Your task to perform on an android device: star an email in the gmail app Image 0: 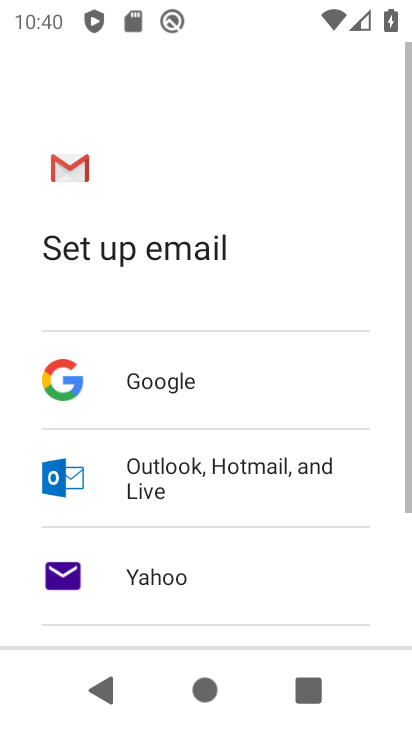
Step 0: press home button
Your task to perform on an android device: star an email in the gmail app Image 1: 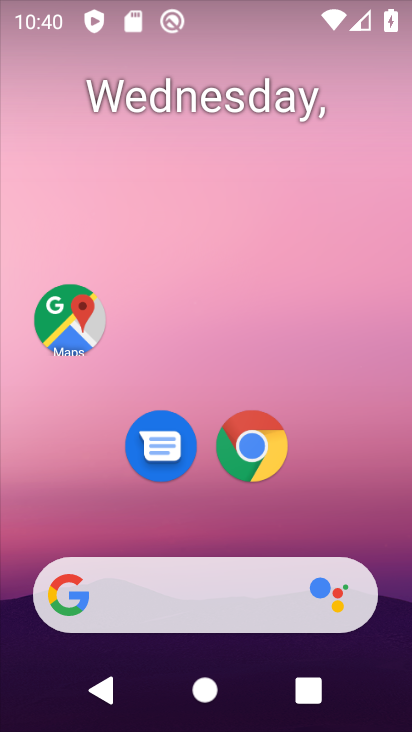
Step 1: drag from (384, 533) to (353, 158)
Your task to perform on an android device: star an email in the gmail app Image 2: 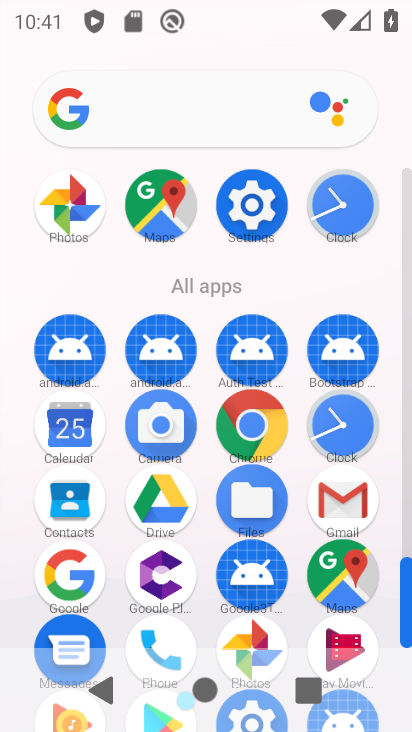
Step 2: click (354, 507)
Your task to perform on an android device: star an email in the gmail app Image 3: 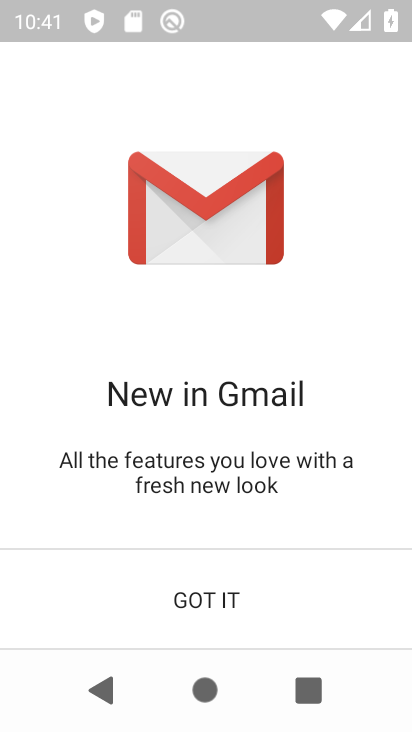
Step 3: click (236, 611)
Your task to perform on an android device: star an email in the gmail app Image 4: 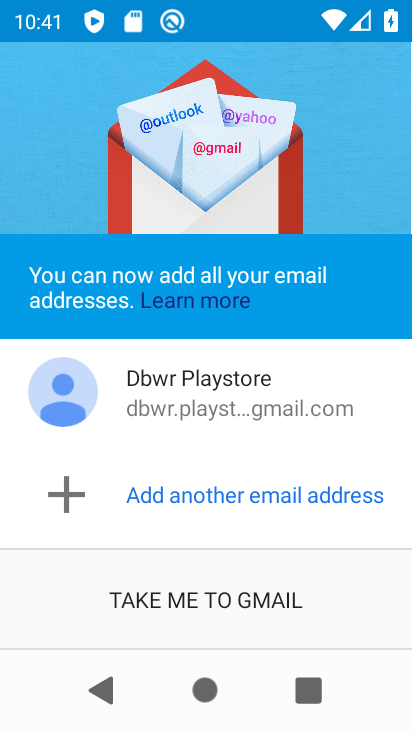
Step 4: click (274, 589)
Your task to perform on an android device: star an email in the gmail app Image 5: 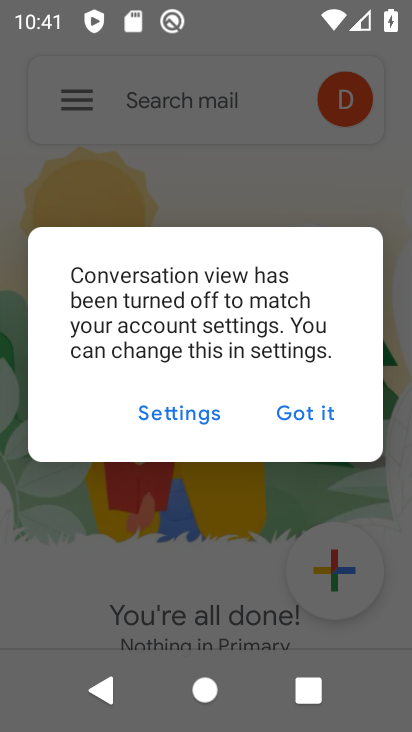
Step 5: click (305, 410)
Your task to perform on an android device: star an email in the gmail app Image 6: 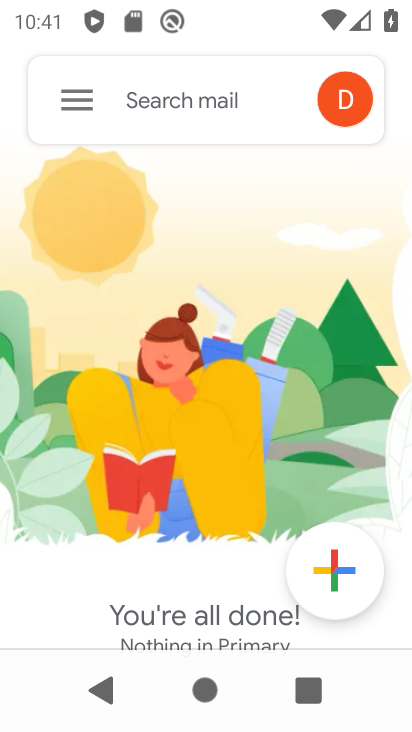
Step 6: click (77, 111)
Your task to perform on an android device: star an email in the gmail app Image 7: 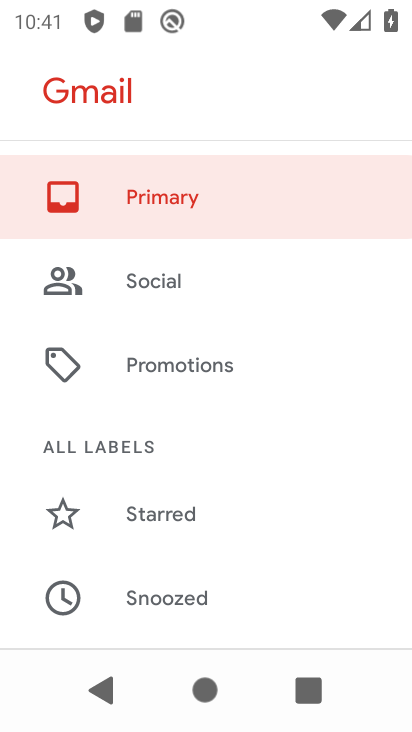
Step 7: drag from (339, 537) to (361, 358)
Your task to perform on an android device: star an email in the gmail app Image 8: 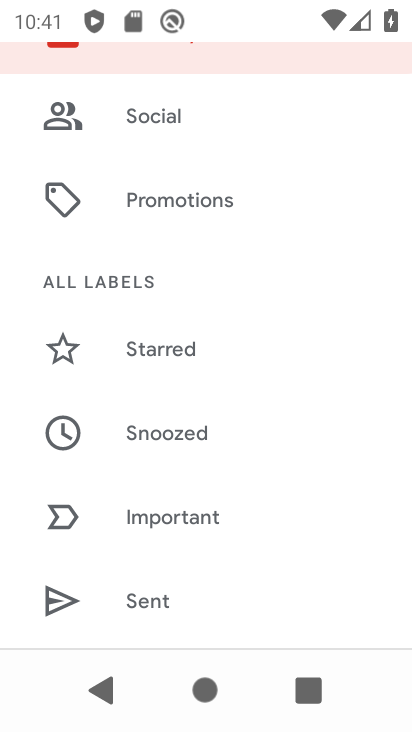
Step 8: drag from (343, 513) to (353, 370)
Your task to perform on an android device: star an email in the gmail app Image 9: 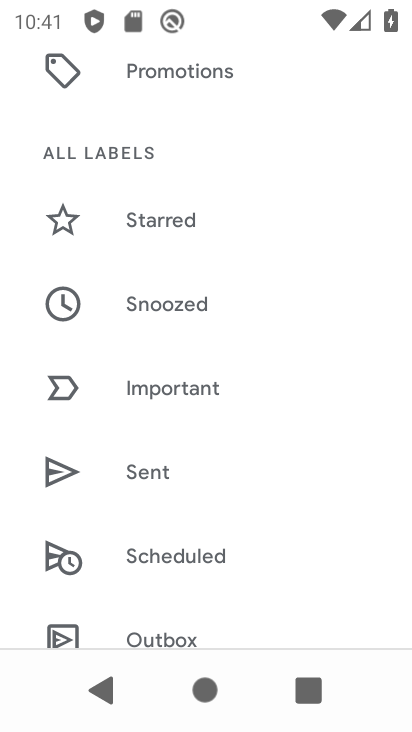
Step 9: drag from (340, 571) to (343, 334)
Your task to perform on an android device: star an email in the gmail app Image 10: 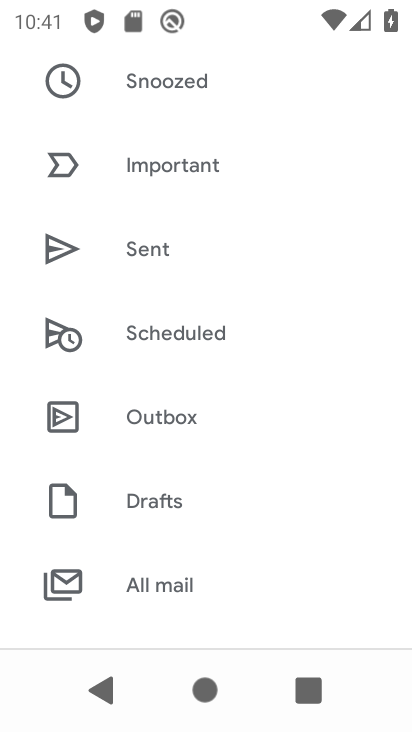
Step 10: drag from (326, 578) to (330, 384)
Your task to perform on an android device: star an email in the gmail app Image 11: 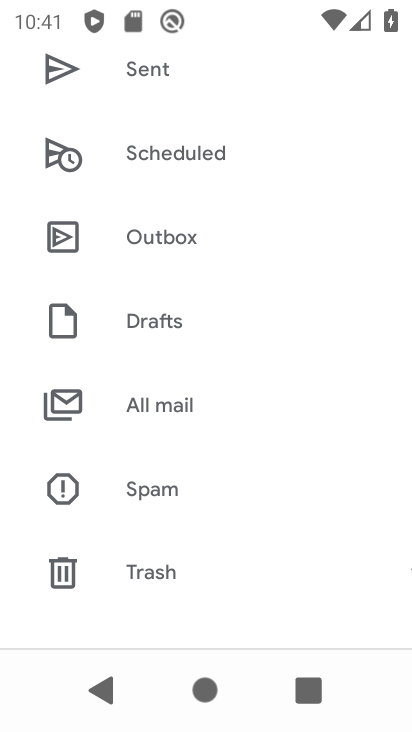
Step 11: drag from (346, 264) to (325, 475)
Your task to perform on an android device: star an email in the gmail app Image 12: 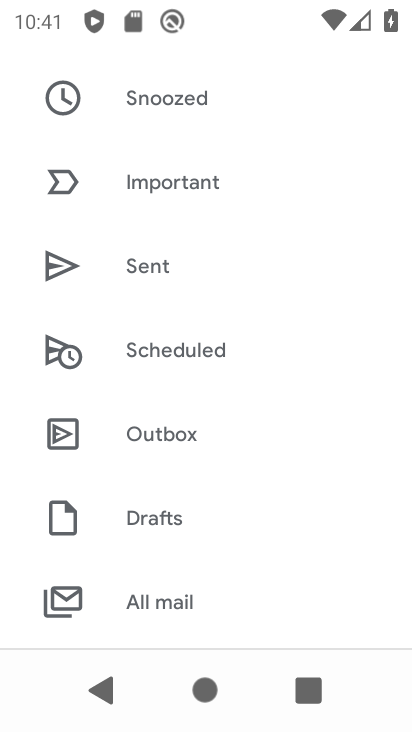
Step 12: drag from (334, 185) to (326, 357)
Your task to perform on an android device: star an email in the gmail app Image 13: 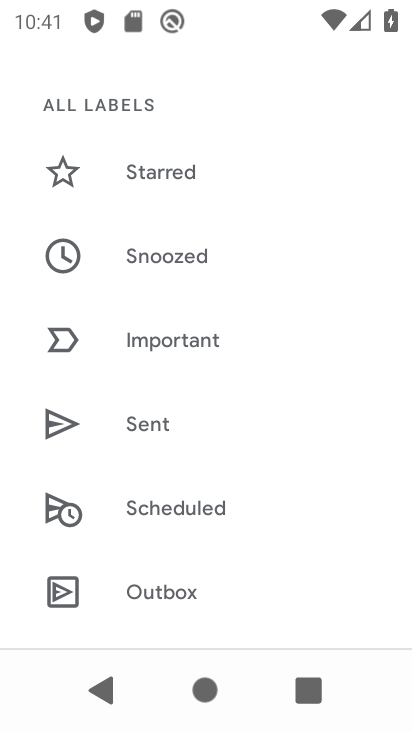
Step 13: drag from (348, 189) to (340, 403)
Your task to perform on an android device: star an email in the gmail app Image 14: 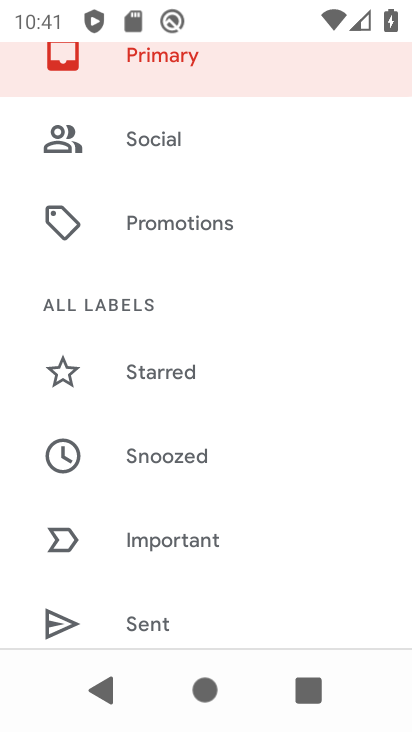
Step 14: drag from (342, 176) to (330, 370)
Your task to perform on an android device: star an email in the gmail app Image 15: 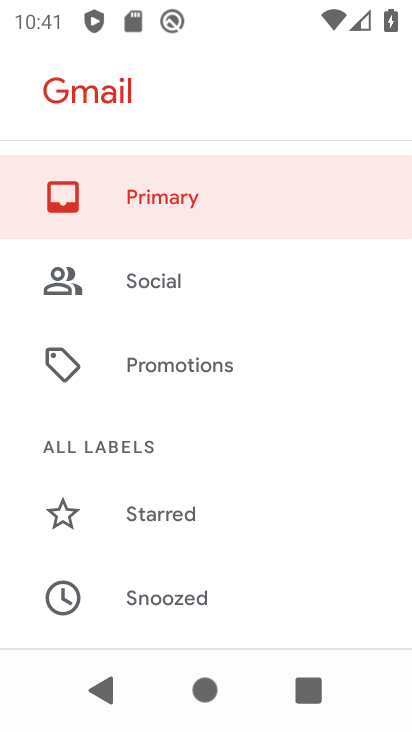
Step 15: click (248, 198)
Your task to perform on an android device: star an email in the gmail app Image 16: 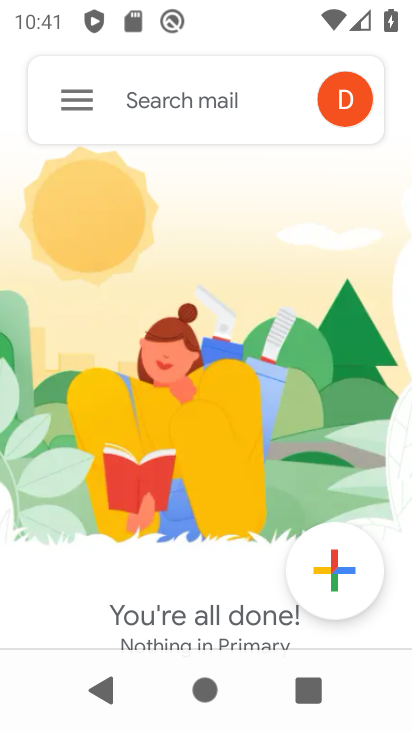
Step 16: task complete